Your task to perform on an android device: Go to ESPN.com Image 0: 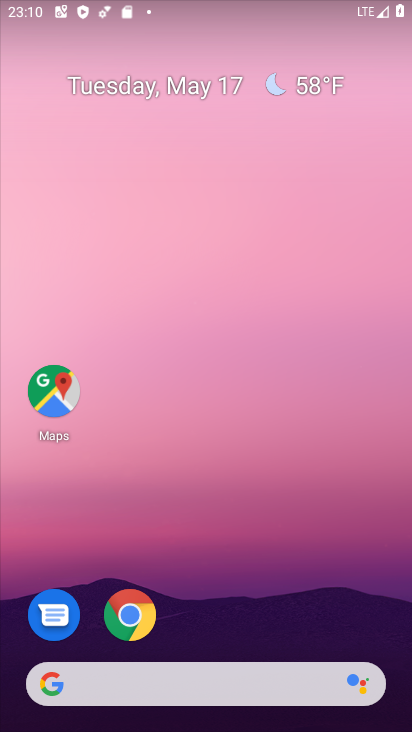
Step 0: click (128, 594)
Your task to perform on an android device: Go to ESPN.com Image 1: 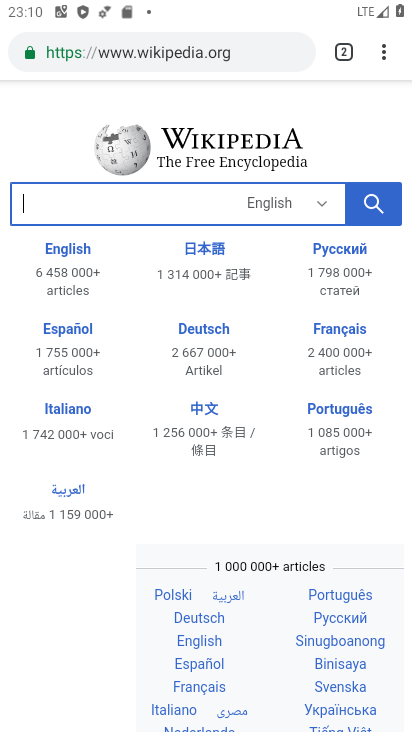
Step 1: click (347, 53)
Your task to perform on an android device: Go to ESPN.com Image 2: 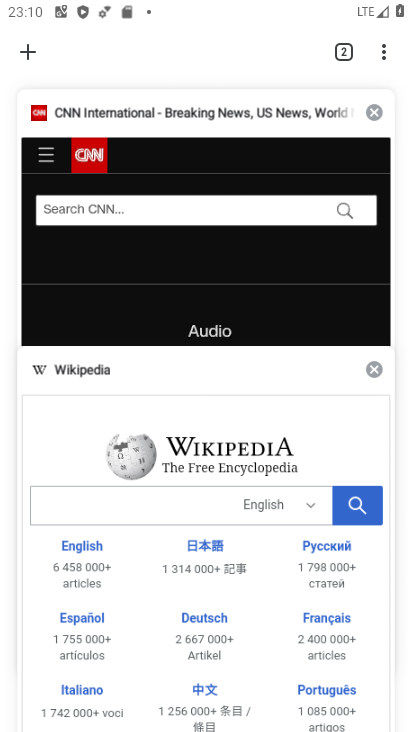
Step 2: click (29, 56)
Your task to perform on an android device: Go to ESPN.com Image 3: 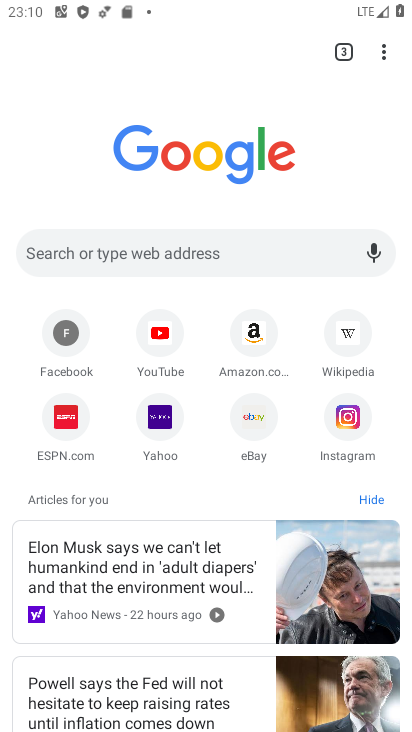
Step 3: click (105, 259)
Your task to perform on an android device: Go to ESPN.com Image 4: 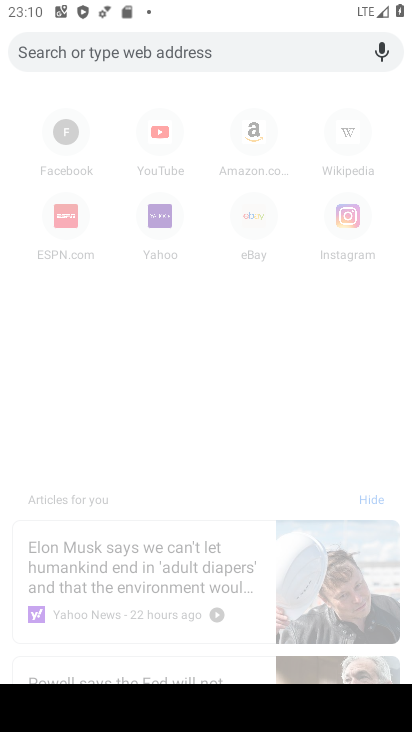
Step 4: type "ESPN.com"
Your task to perform on an android device: Go to ESPN.com Image 5: 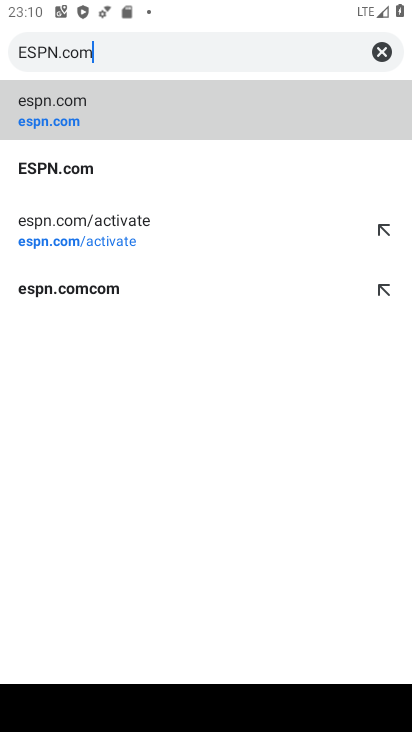
Step 5: click (108, 117)
Your task to perform on an android device: Go to ESPN.com Image 6: 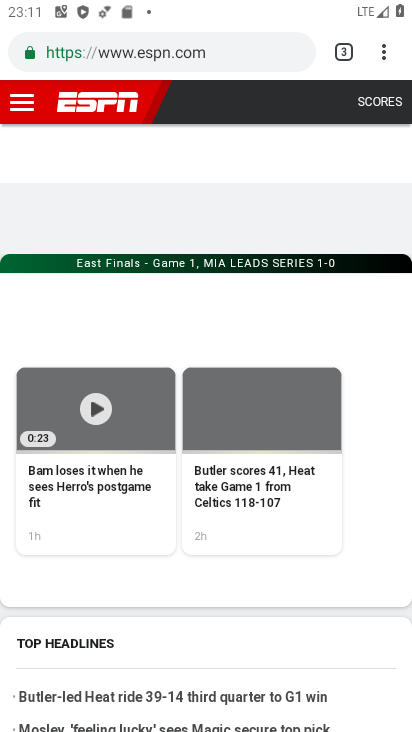
Step 6: task complete